Your task to perform on an android device: What is the average speed of a car? Image 0: 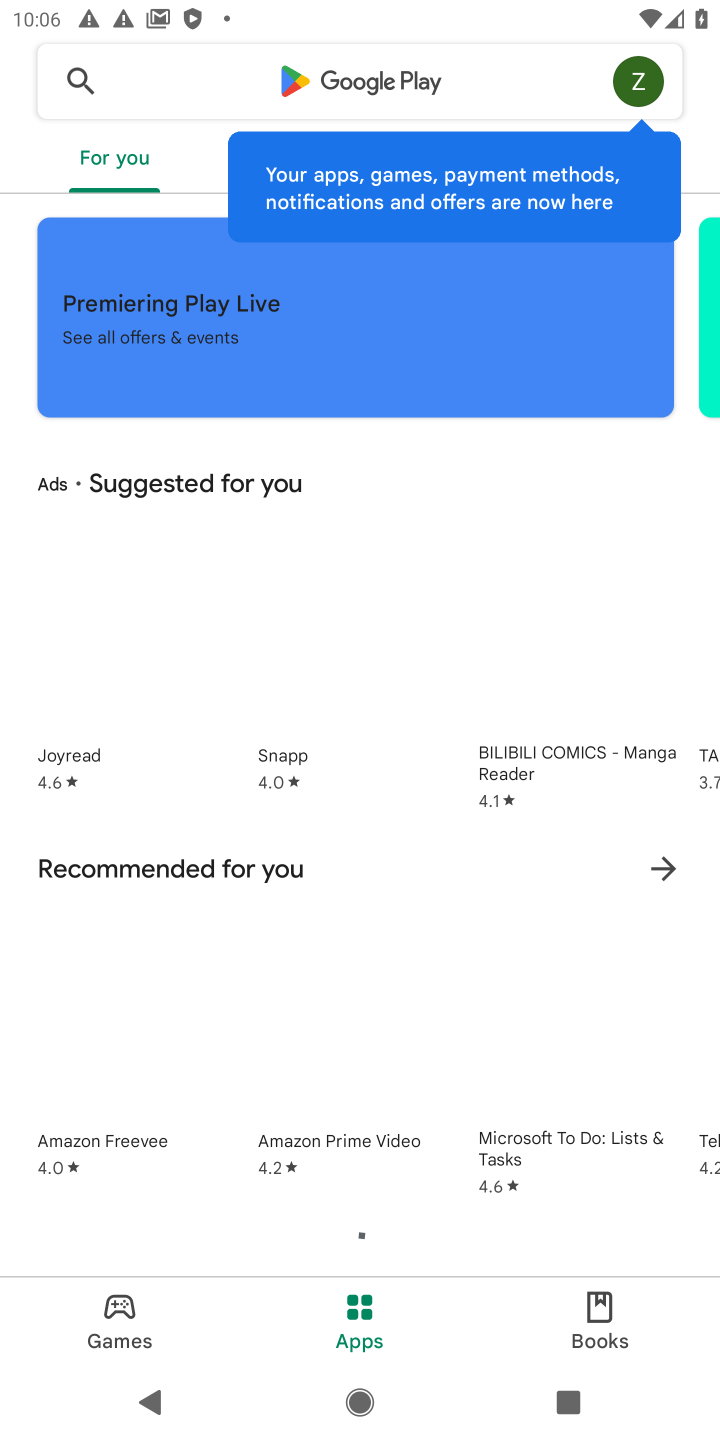
Step 0: press home button
Your task to perform on an android device: What is the average speed of a car? Image 1: 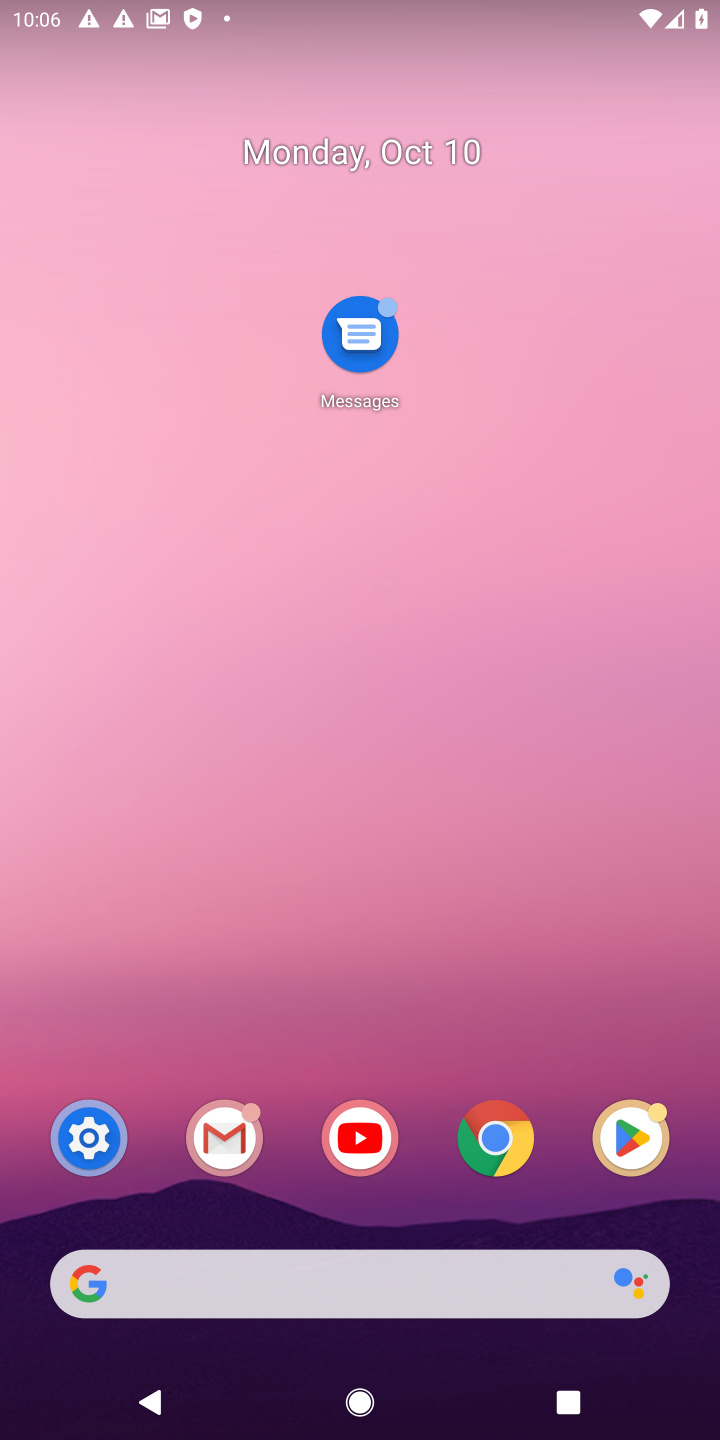
Step 1: click (502, 1147)
Your task to perform on an android device: What is the average speed of a car? Image 2: 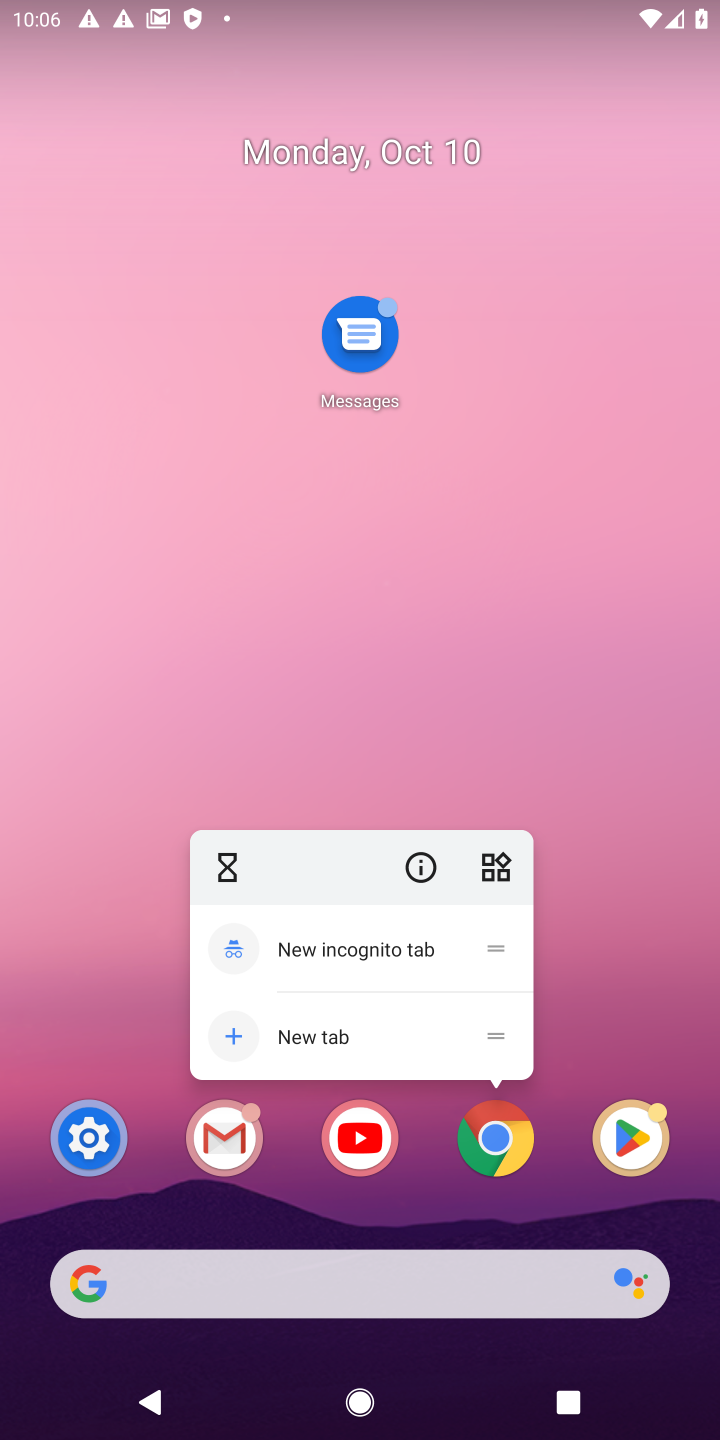
Step 2: click (492, 1153)
Your task to perform on an android device: What is the average speed of a car? Image 3: 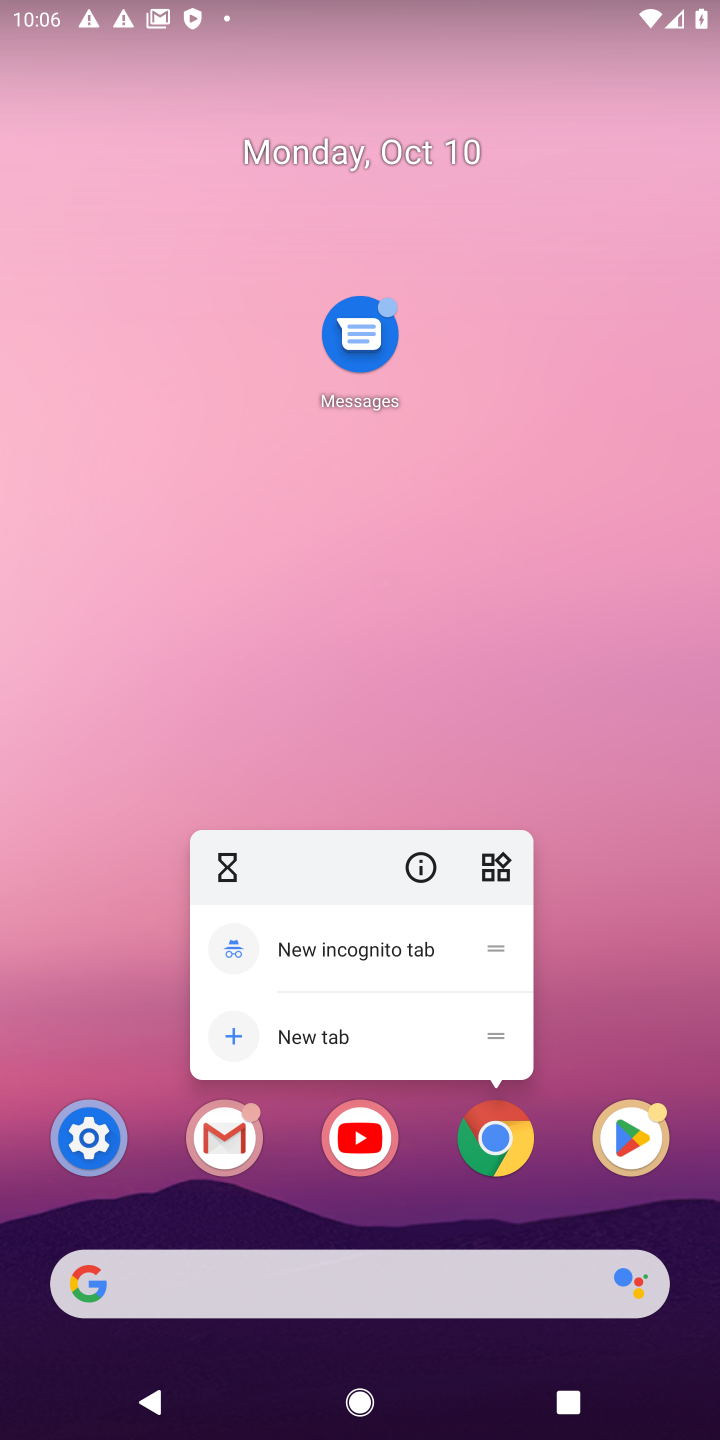
Step 3: click (506, 1133)
Your task to perform on an android device: What is the average speed of a car? Image 4: 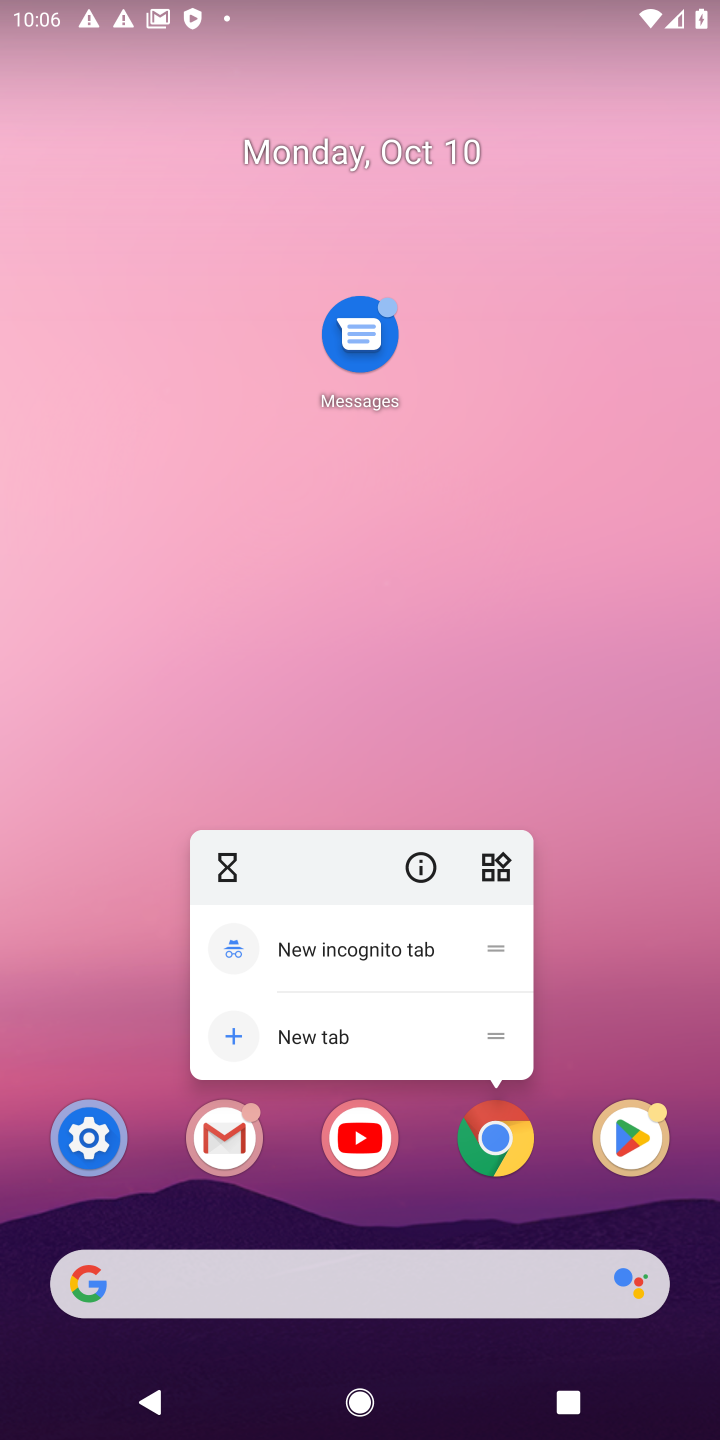
Step 4: click (489, 1163)
Your task to perform on an android device: What is the average speed of a car? Image 5: 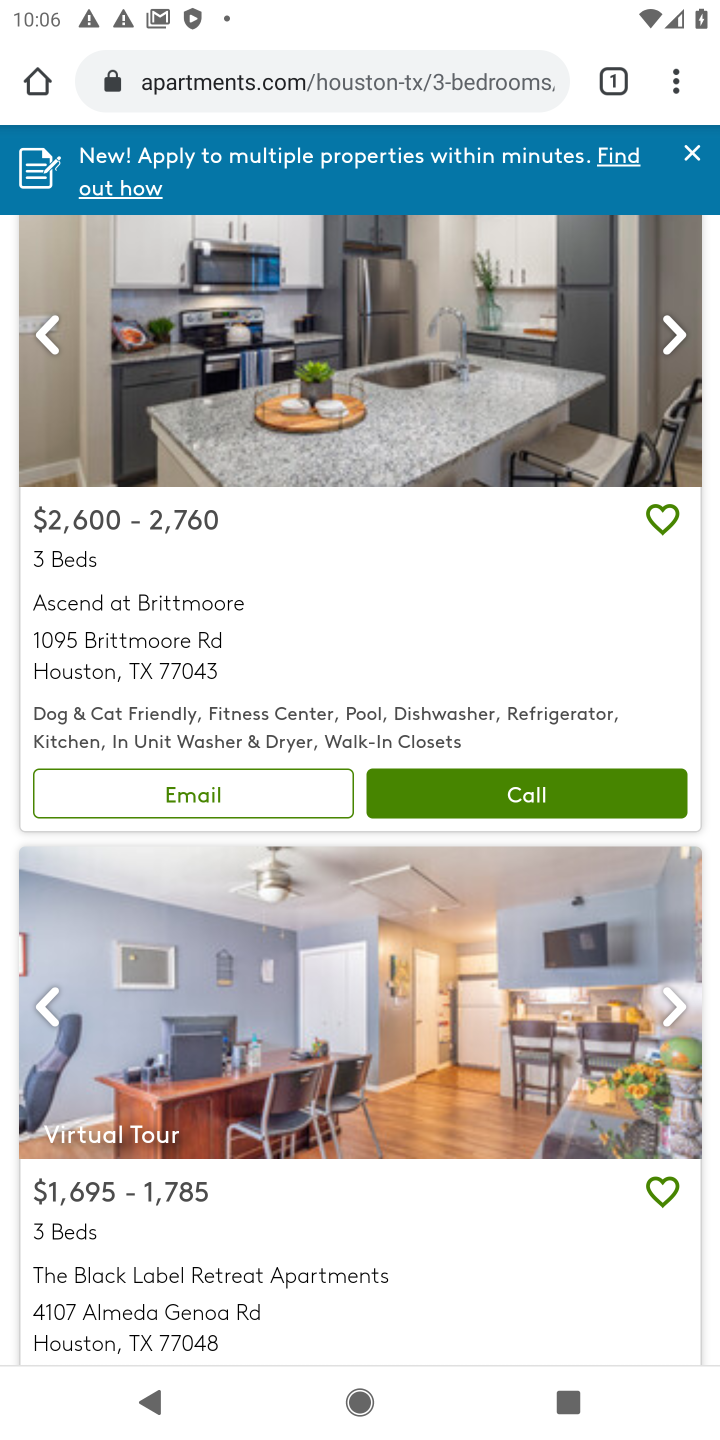
Step 5: click (328, 90)
Your task to perform on an android device: What is the average speed of a car? Image 6: 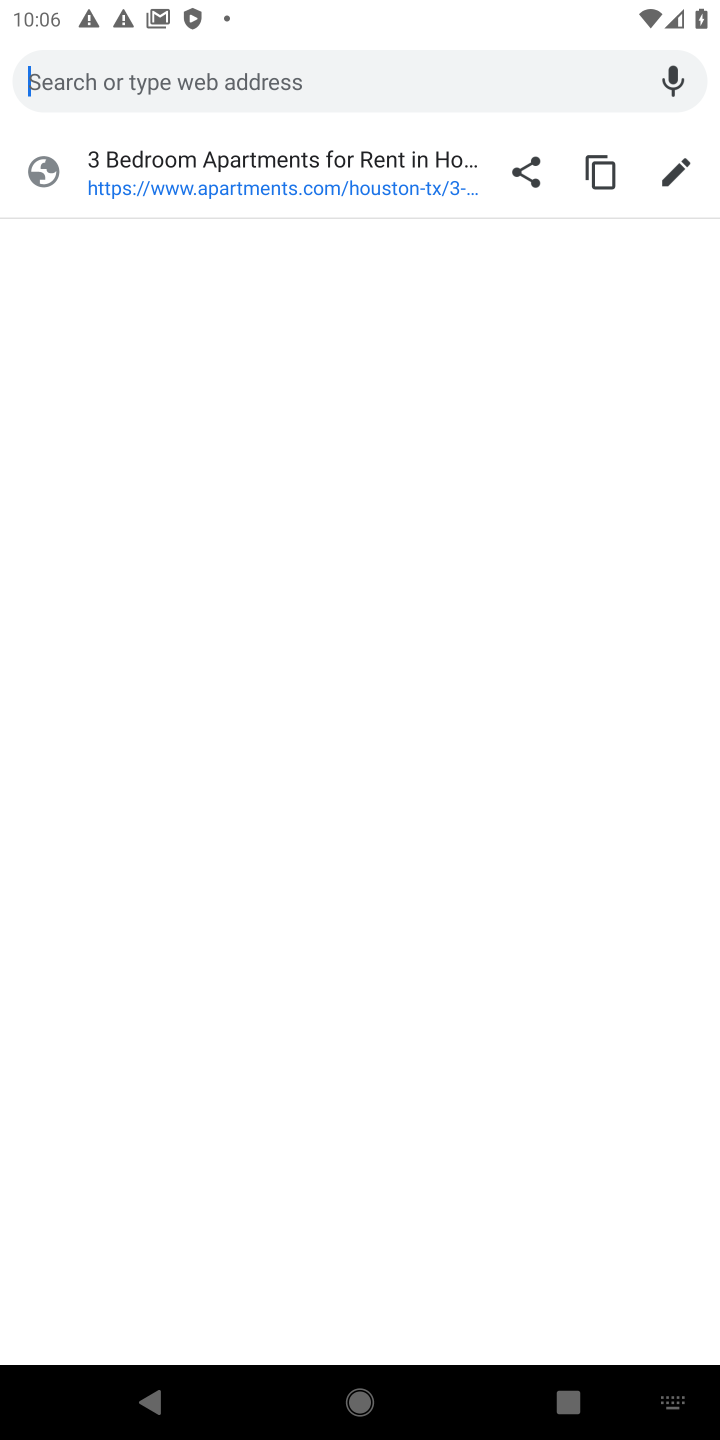
Step 6: type "average speed of a car"
Your task to perform on an android device: What is the average speed of a car? Image 7: 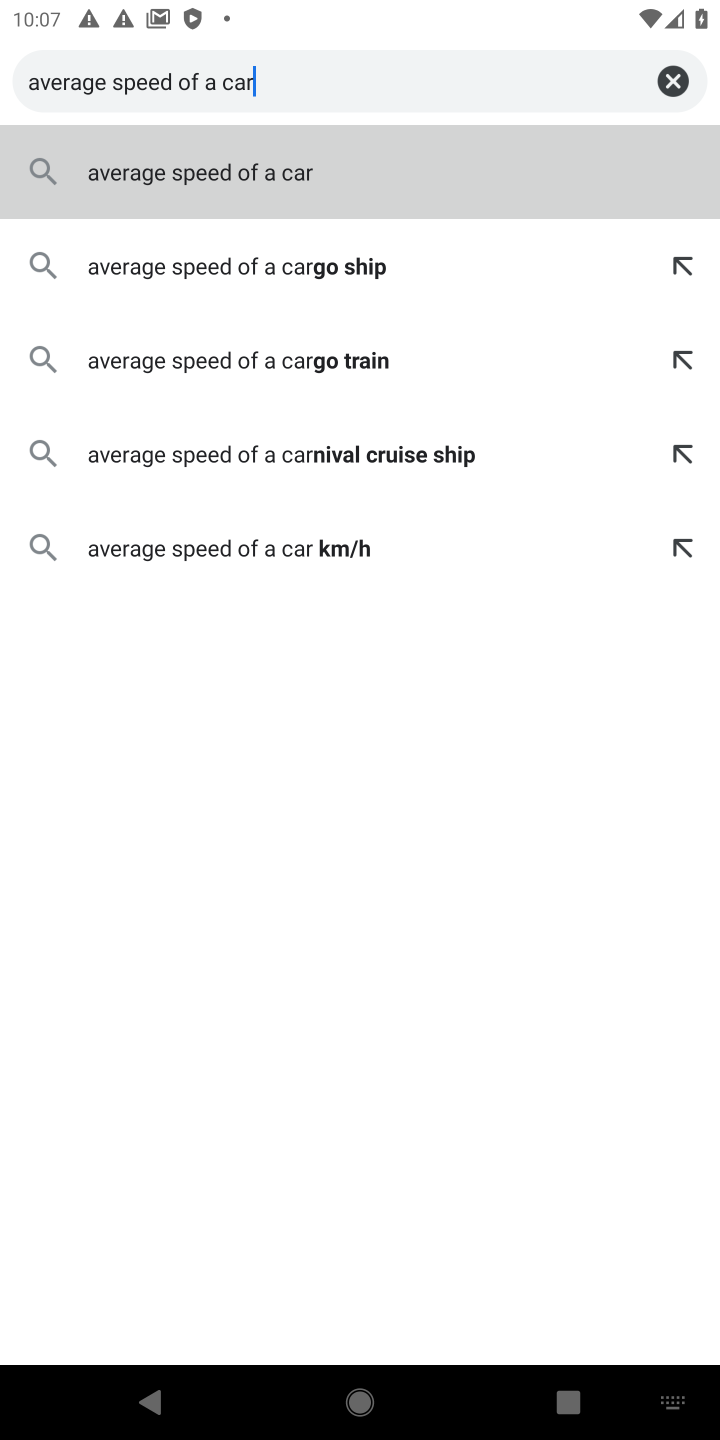
Step 7: press enter
Your task to perform on an android device: What is the average speed of a car? Image 8: 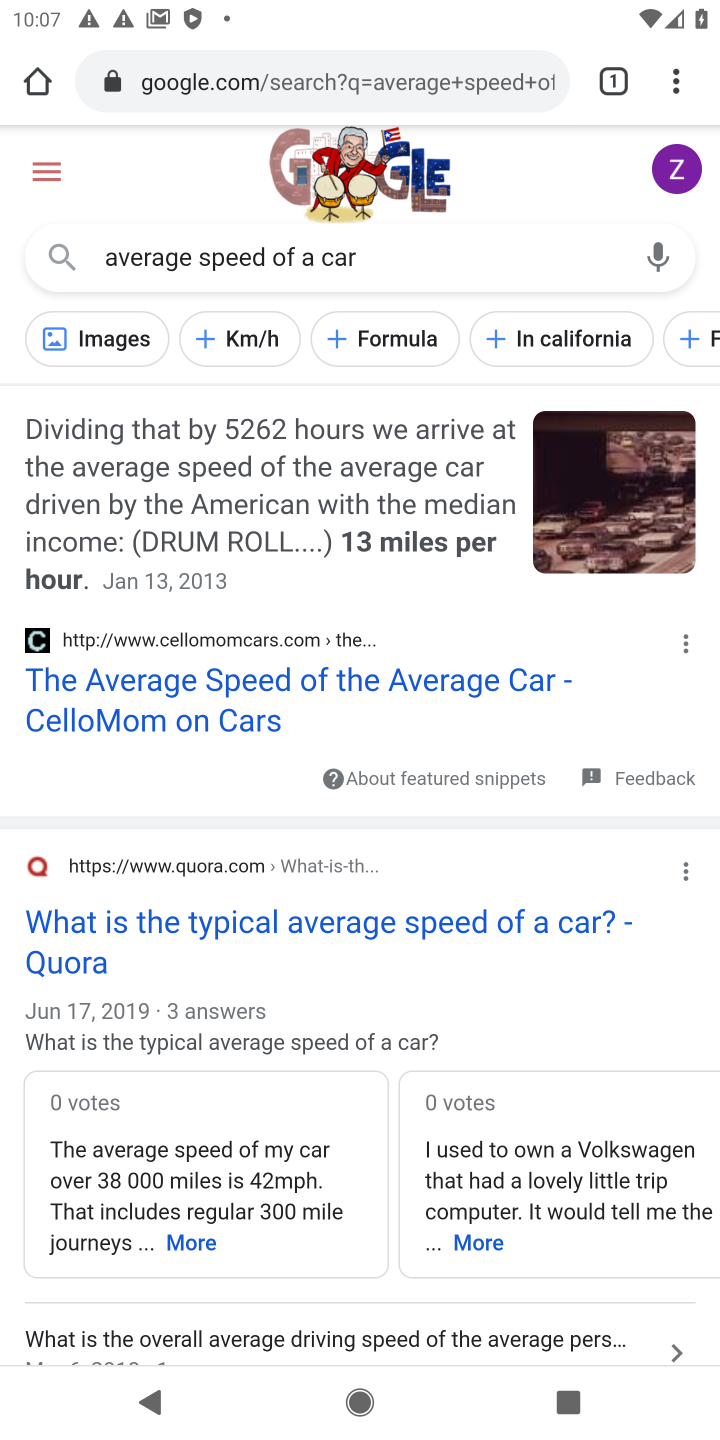
Step 8: task complete